Your task to perform on an android device: Go to sound settings Image 0: 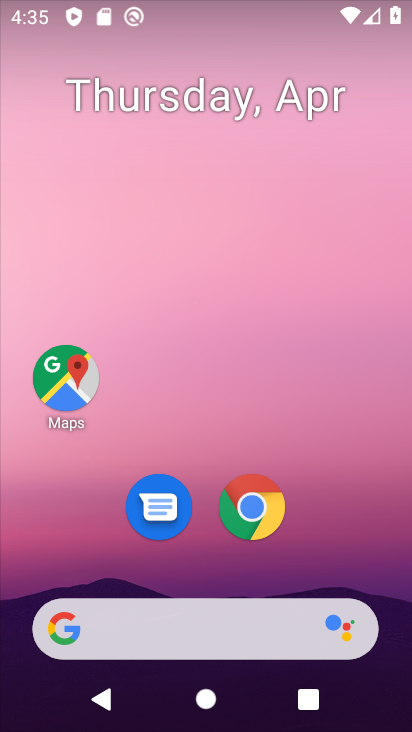
Step 0: task complete